Your task to perform on an android device: choose inbox layout in the gmail app Image 0: 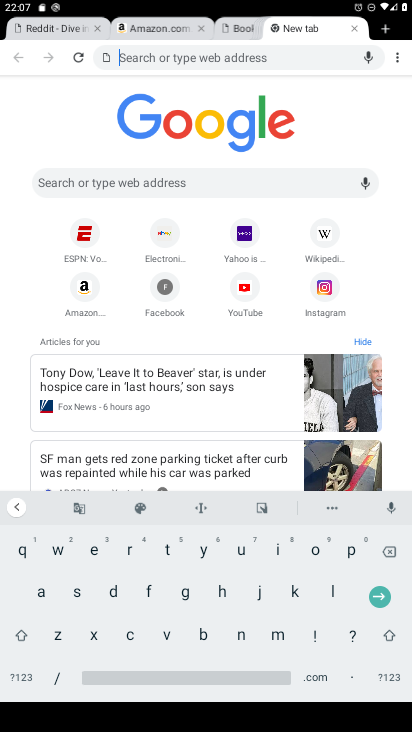
Step 0: press home button
Your task to perform on an android device: choose inbox layout in the gmail app Image 1: 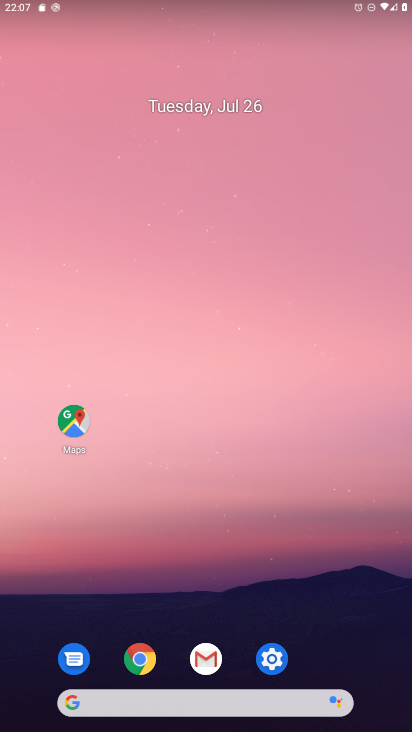
Step 1: click (205, 662)
Your task to perform on an android device: choose inbox layout in the gmail app Image 2: 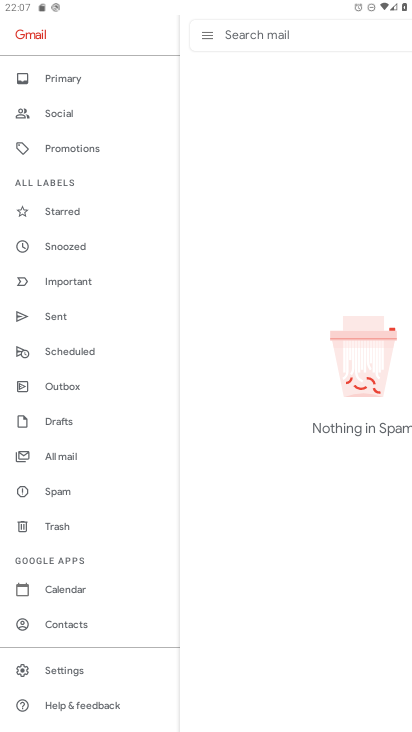
Step 2: click (74, 667)
Your task to perform on an android device: choose inbox layout in the gmail app Image 3: 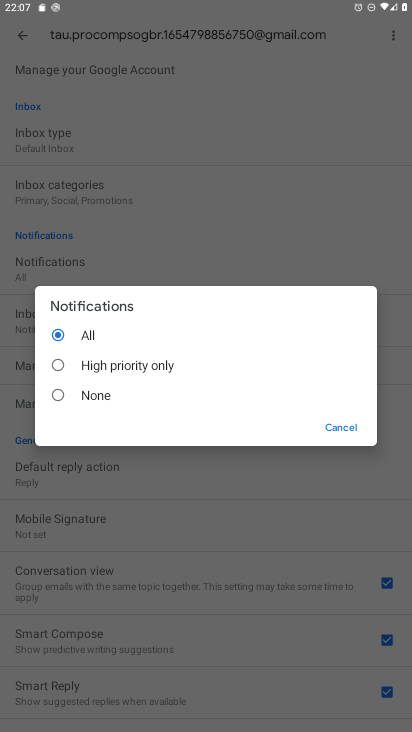
Step 3: click (235, 576)
Your task to perform on an android device: choose inbox layout in the gmail app Image 4: 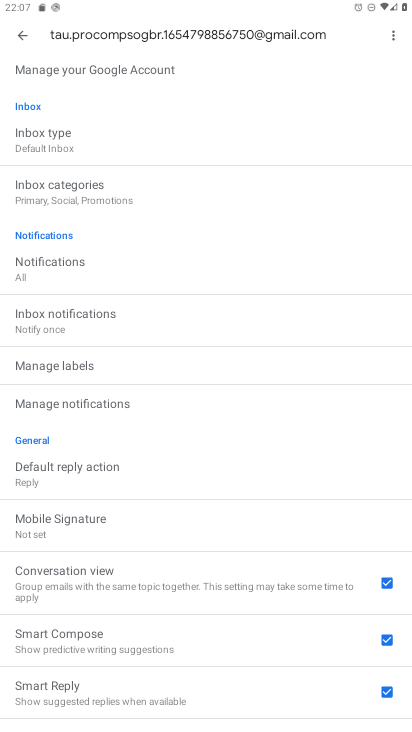
Step 4: task complete